Your task to perform on an android device: Show me popular games on the Play Store Image 0: 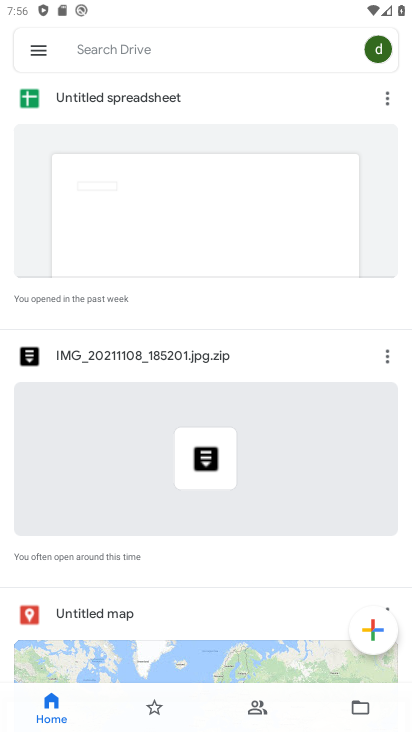
Step 0: press home button
Your task to perform on an android device: Show me popular games on the Play Store Image 1: 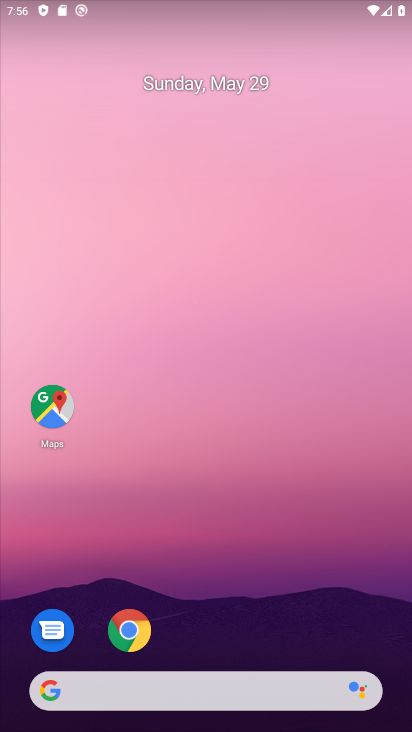
Step 1: drag from (190, 663) to (183, 33)
Your task to perform on an android device: Show me popular games on the Play Store Image 2: 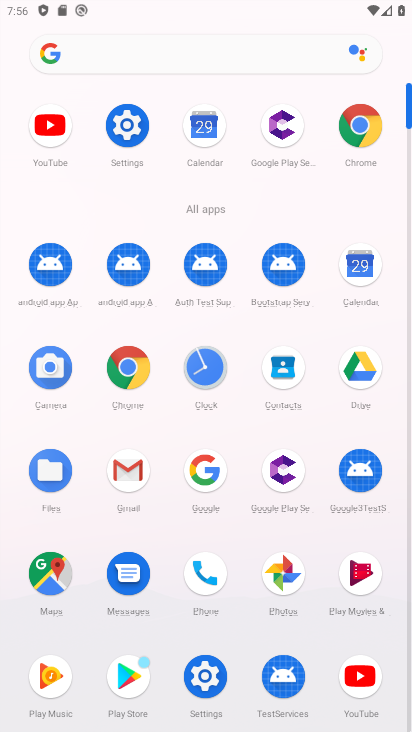
Step 2: click (119, 677)
Your task to perform on an android device: Show me popular games on the Play Store Image 3: 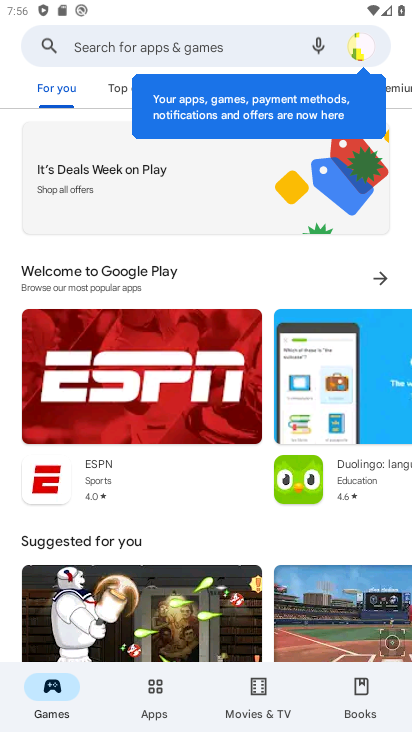
Step 3: drag from (188, 546) to (96, 128)
Your task to perform on an android device: Show me popular games on the Play Store Image 4: 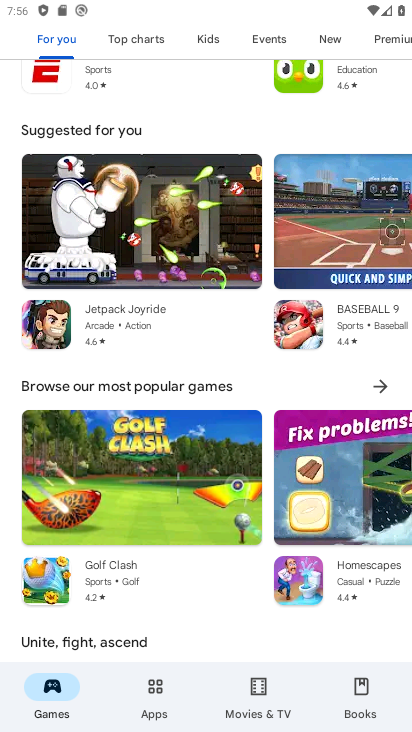
Step 4: click (383, 382)
Your task to perform on an android device: Show me popular games on the Play Store Image 5: 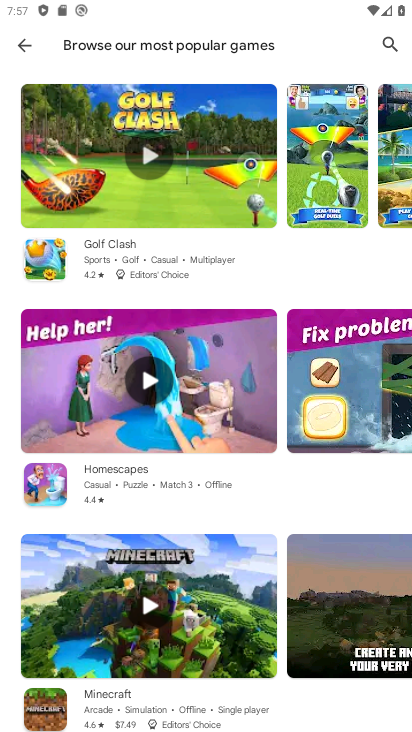
Step 5: task complete